Your task to perform on an android device: change the upload size in google photos Image 0: 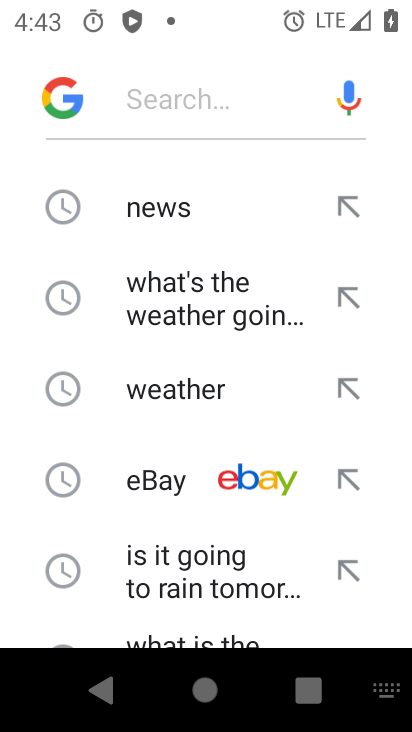
Step 0: press home button
Your task to perform on an android device: change the upload size in google photos Image 1: 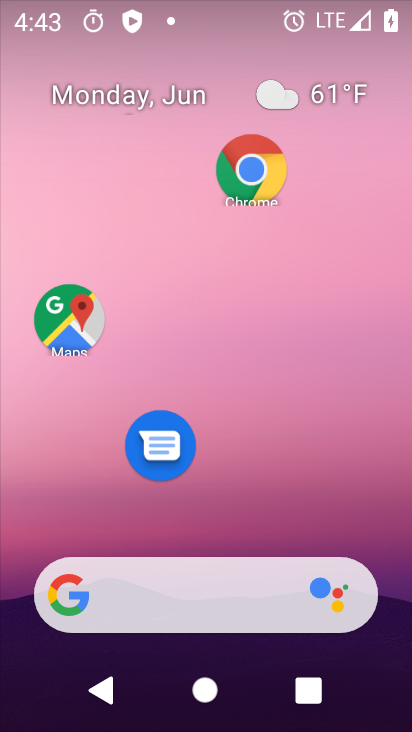
Step 1: drag from (225, 544) to (227, 222)
Your task to perform on an android device: change the upload size in google photos Image 2: 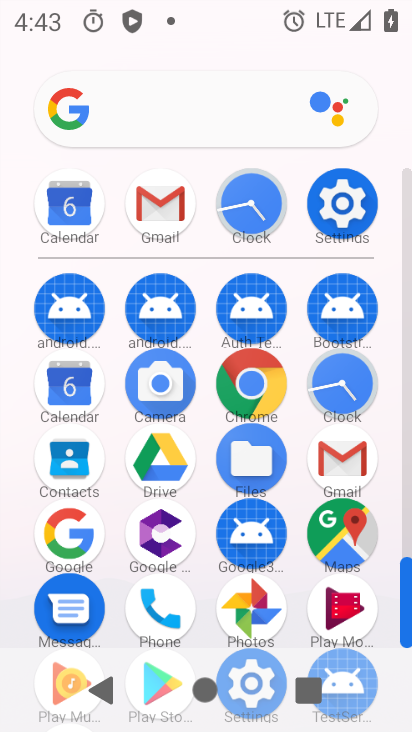
Step 2: click (337, 205)
Your task to perform on an android device: change the upload size in google photos Image 3: 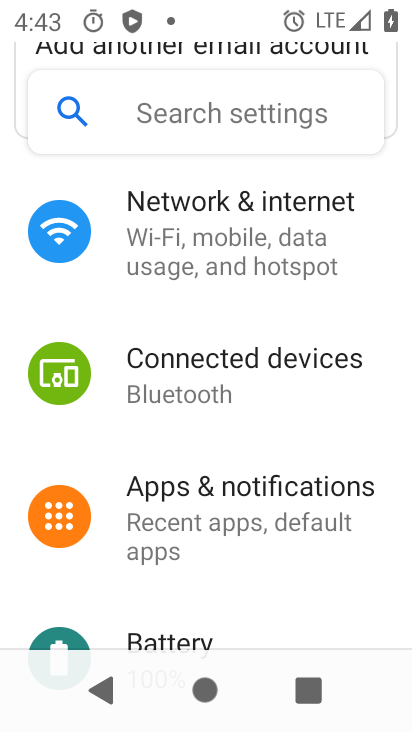
Step 3: drag from (209, 564) to (232, 658)
Your task to perform on an android device: change the upload size in google photos Image 4: 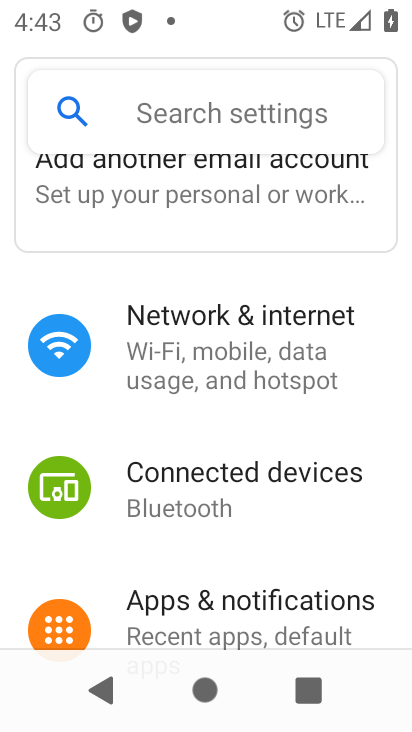
Step 4: press back button
Your task to perform on an android device: change the upload size in google photos Image 5: 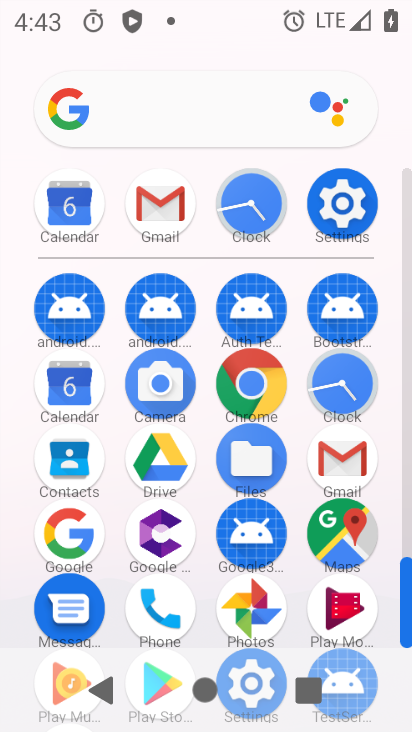
Step 5: click (272, 612)
Your task to perform on an android device: change the upload size in google photos Image 6: 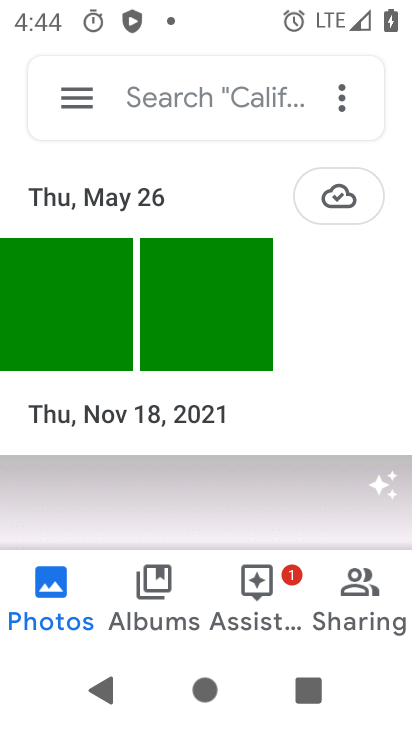
Step 6: click (80, 105)
Your task to perform on an android device: change the upload size in google photos Image 7: 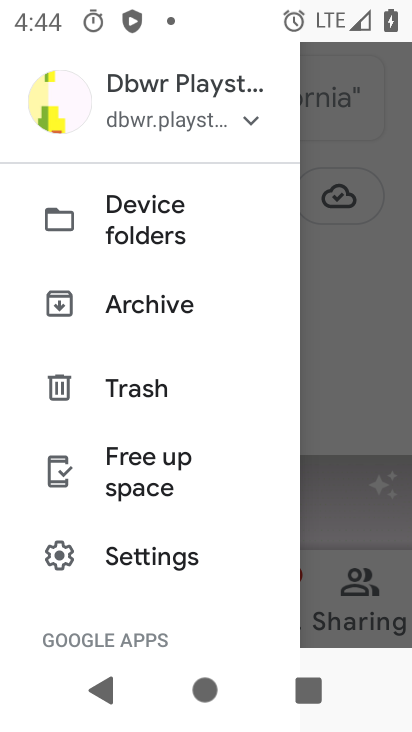
Step 7: click (136, 564)
Your task to perform on an android device: change the upload size in google photos Image 8: 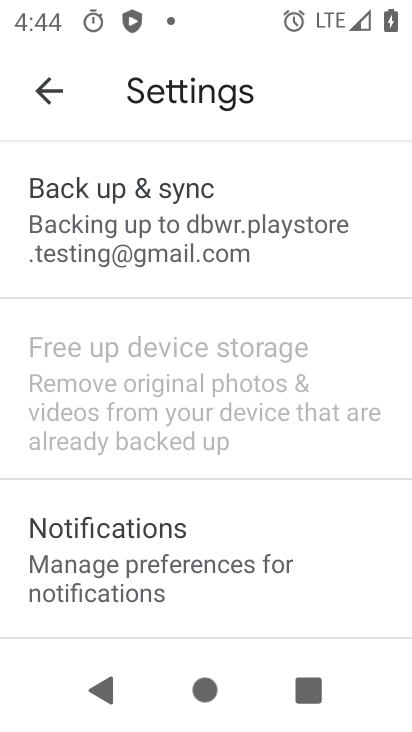
Step 8: click (162, 242)
Your task to perform on an android device: change the upload size in google photos Image 9: 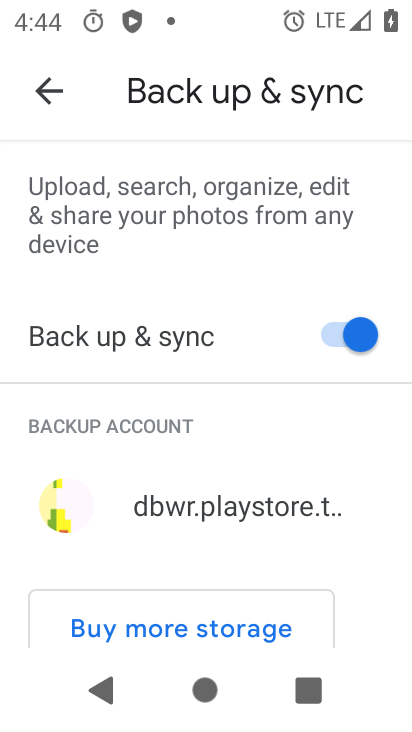
Step 9: click (142, 223)
Your task to perform on an android device: change the upload size in google photos Image 10: 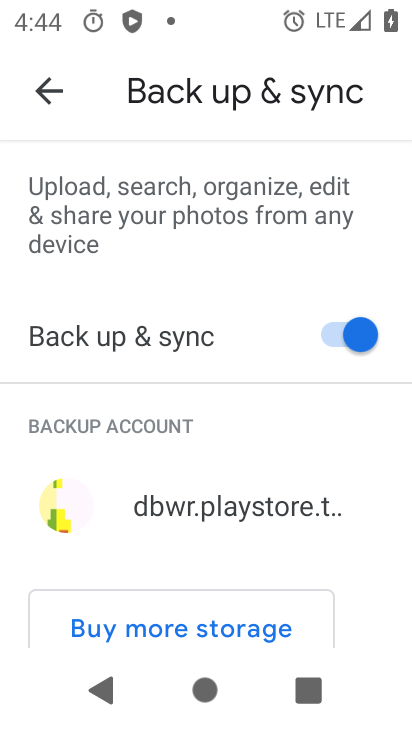
Step 10: drag from (223, 501) to (234, 231)
Your task to perform on an android device: change the upload size in google photos Image 11: 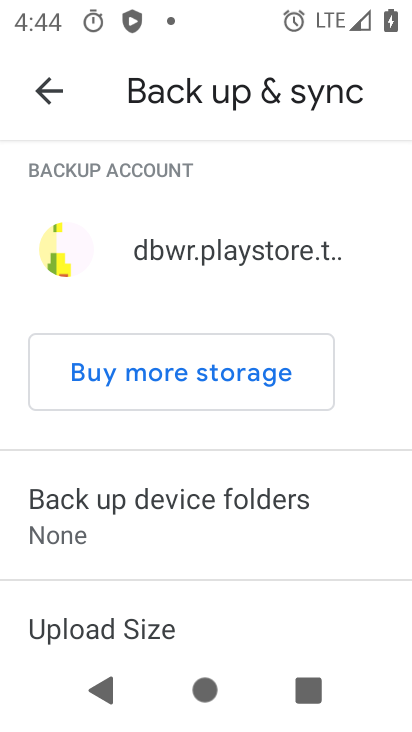
Step 11: click (101, 637)
Your task to perform on an android device: change the upload size in google photos Image 12: 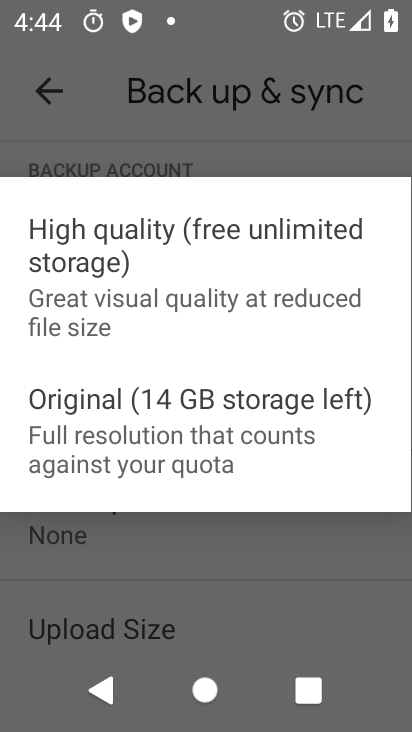
Step 12: click (205, 428)
Your task to perform on an android device: change the upload size in google photos Image 13: 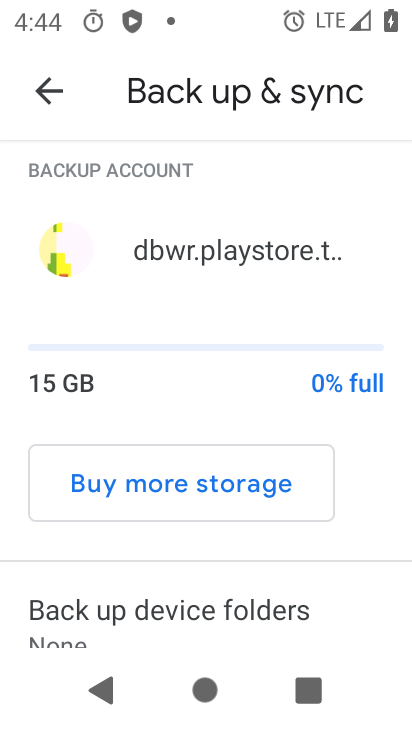
Step 13: task complete